Your task to perform on an android device: move a message to another label in the gmail app Image 0: 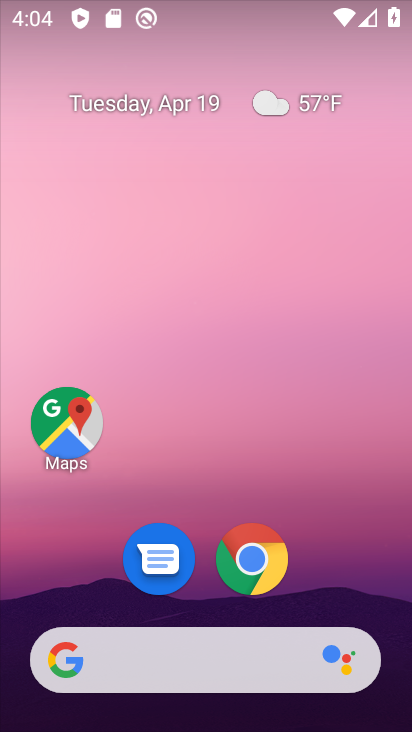
Step 0: drag from (335, 498) to (334, 217)
Your task to perform on an android device: move a message to another label in the gmail app Image 1: 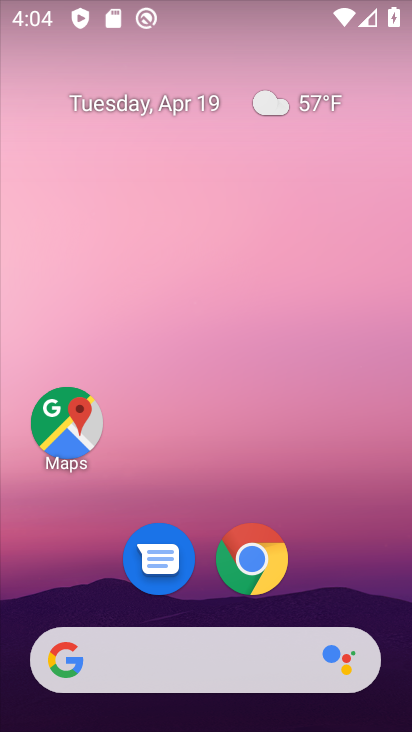
Step 1: drag from (373, 555) to (341, 98)
Your task to perform on an android device: move a message to another label in the gmail app Image 2: 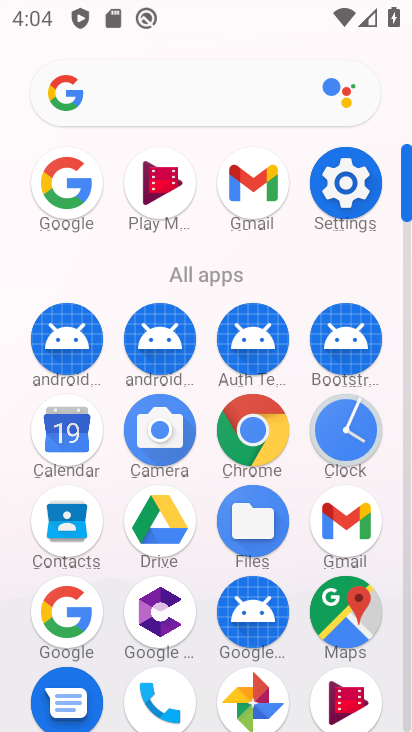
Step 2: click (346, 533)
Your task to perform on an android device: move a message to another label in the gmail app Image 3: 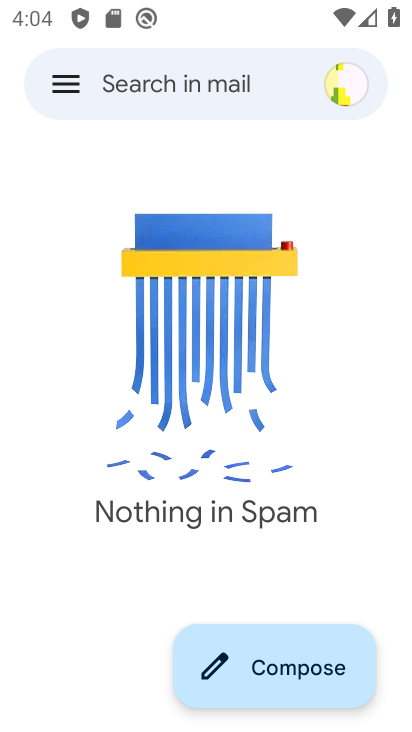
Step 3: click (55, 82)
Your task to perform on an android device: move a message to another label in the gmail app Image 4: 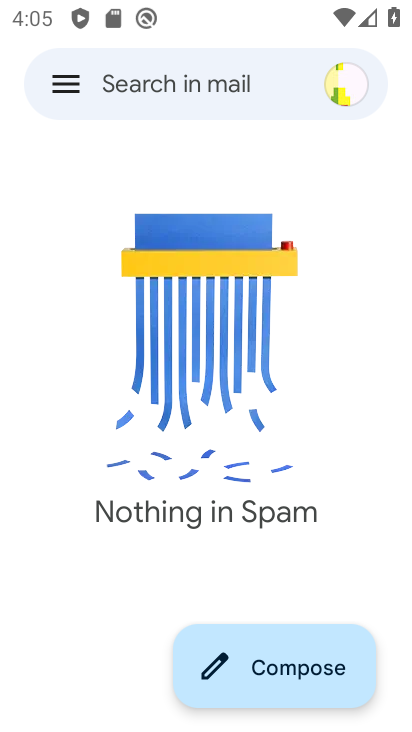
Step 4: click (68, 88)
Your task to perform on an android device: move a message to another label in the gmail app Image 5: 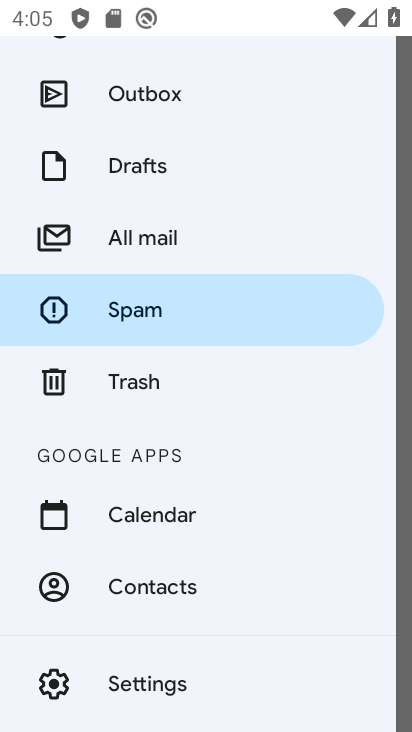
Step 5: drag from (272, 645) to (261, 342)
Your task to perform on an android device: move a message to another label in the gmail app Image 6: 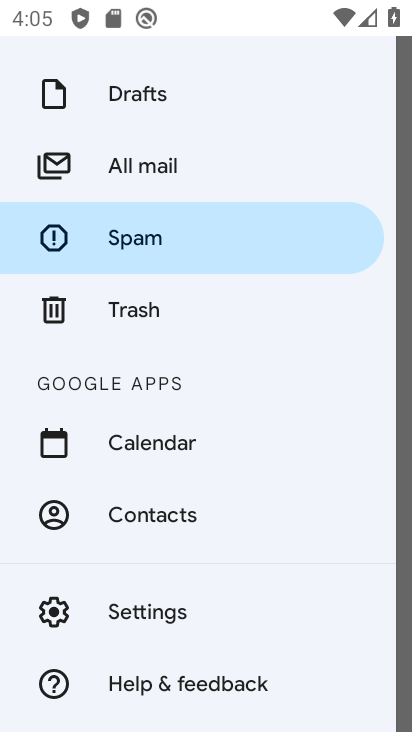
Step 6: drag from (284, 657) to (269, 238)
Your task to perform on an android device: move a message to another label in the gmail app Image 7: 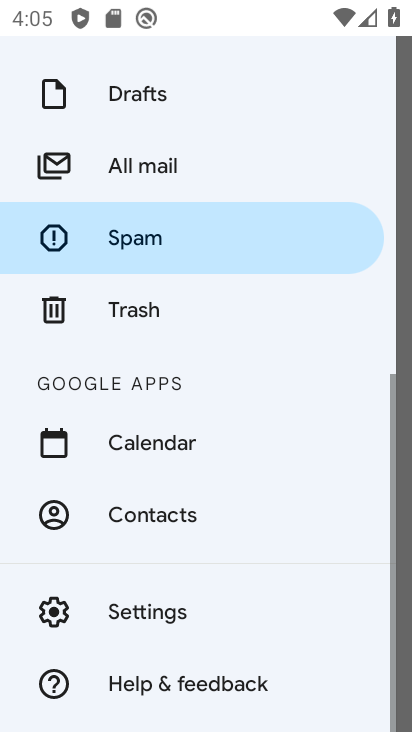
Step 7: drag from (290, 644) to (285, 272)
Your task to perform on an android device: move a message to another label in the gmail app Image 8: 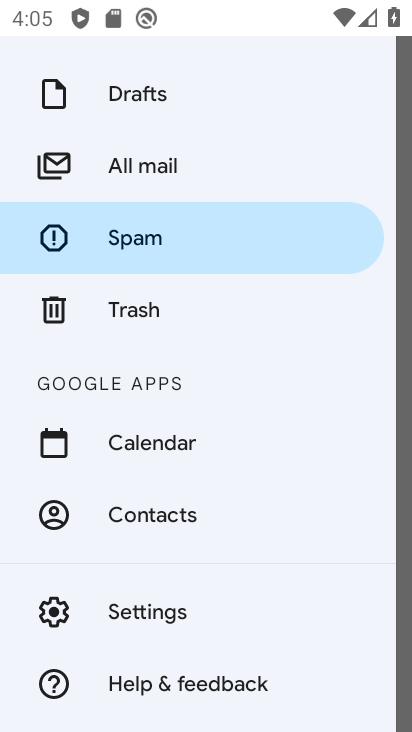
Step 8: drag from (278, 103) to (303, 586)
Your task to perform on an android device: move a message to another label in the gmail app Image 9: 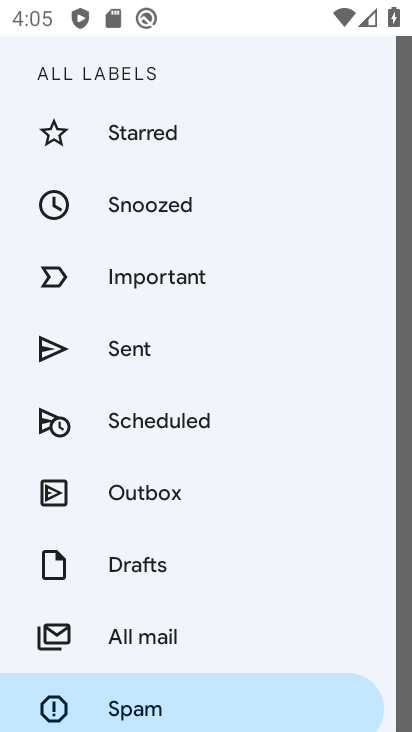
Step 9: drag from (279, 253) to (283, 580)
Your task to perform on an android device: move a message to another label in the gmail app Image 10: 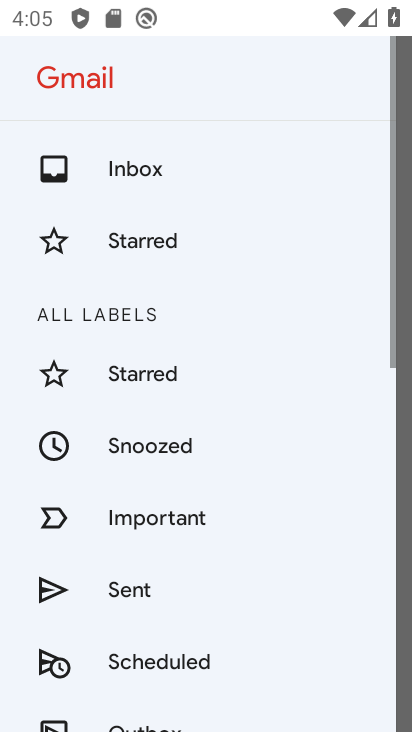
Step 10: drag from (298, 418) to (299, 566)
Your task to perform on an android device: move a message to another label in the gmail app Image 11: 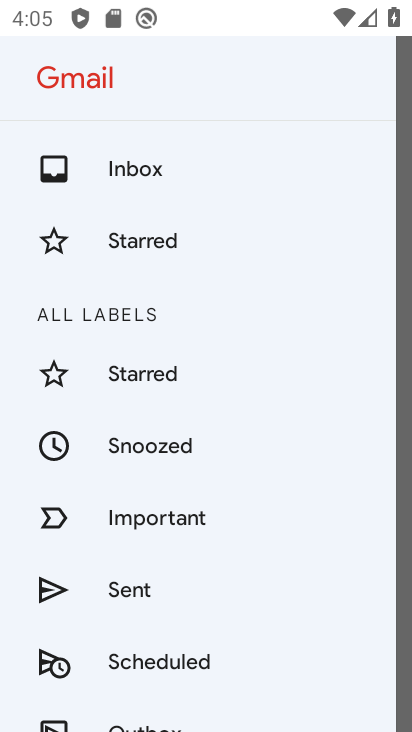
Step 11: click (127, 165)
Your task to perform on an android device: move a message to another label in the gmail app Image 12: 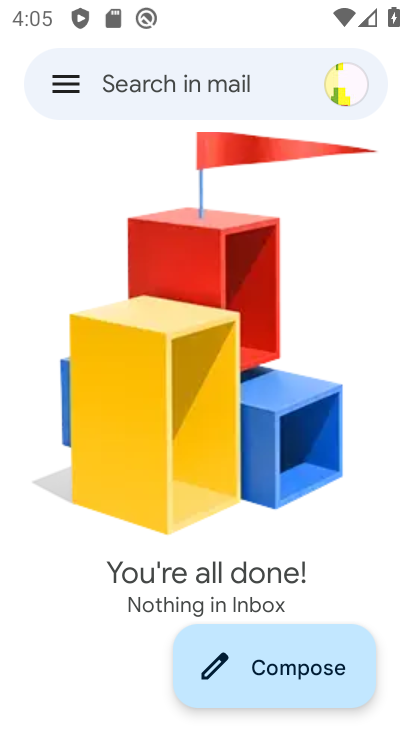
Step 12: task complete